Your task to perform on an android device: Go to Android settings Image 0: 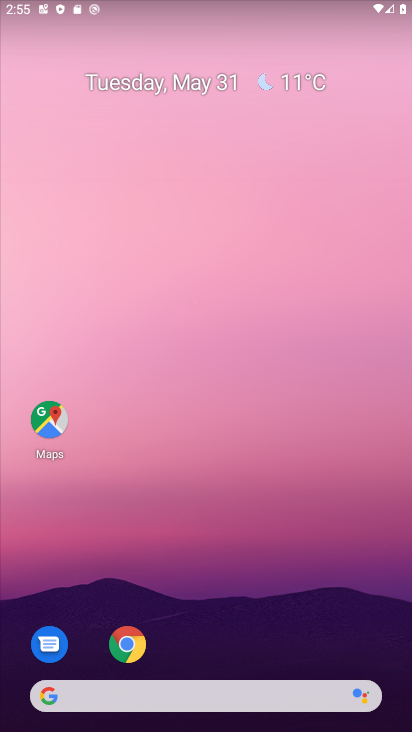
Step 0: drag from (205, 628) to (286, 96)
Your task to perform on an android device: Go to Android settings Image 1: 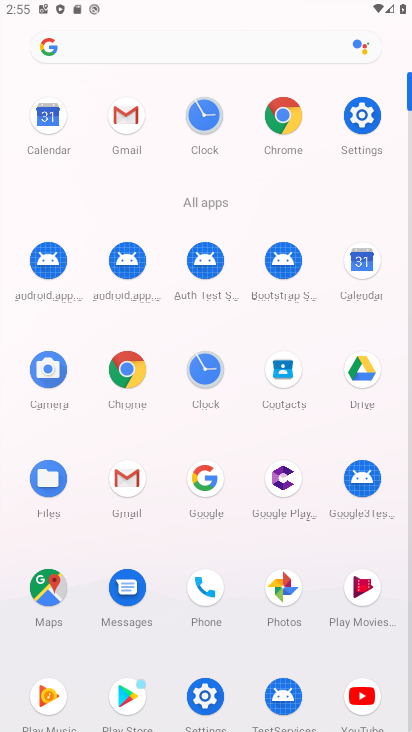
Step 1: click (361, 117)
Your task to perform on an android device: Go to Android settings Image 2: 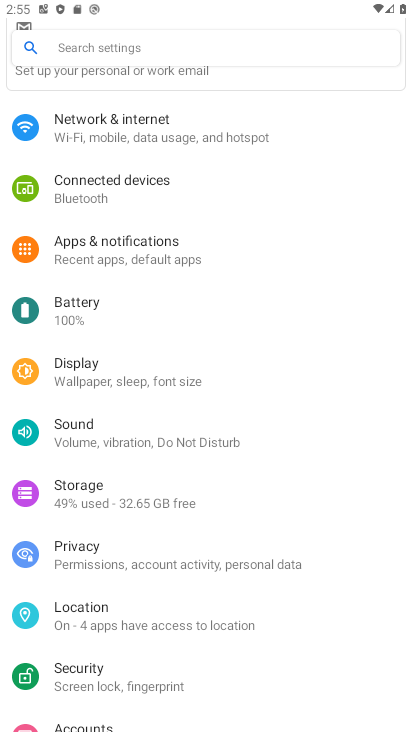
Step 2: task complete